Your task to perform on an android device: Is it going to rain tomorrow? Image 0: 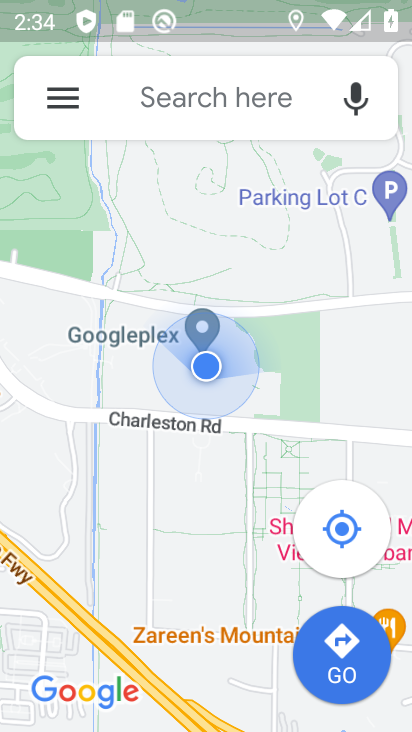
Step 0: press home button
Your task to perform on an android device: Is it going to rain tomorrow? Image 1: 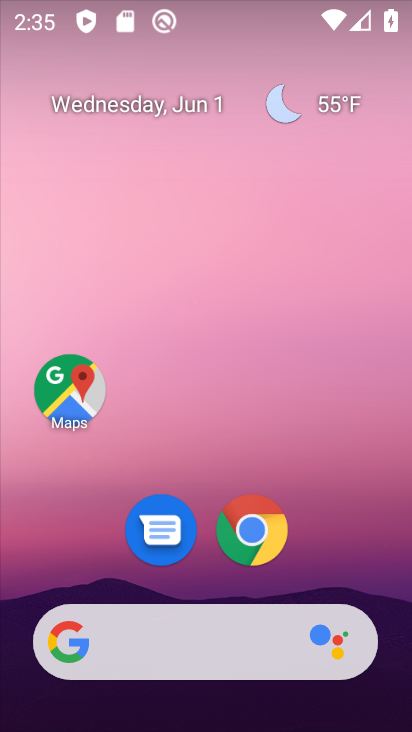
Step 1: click (332, 99)
Your task to perform on an android device: Is it going to rain tomorrow? Image 2: 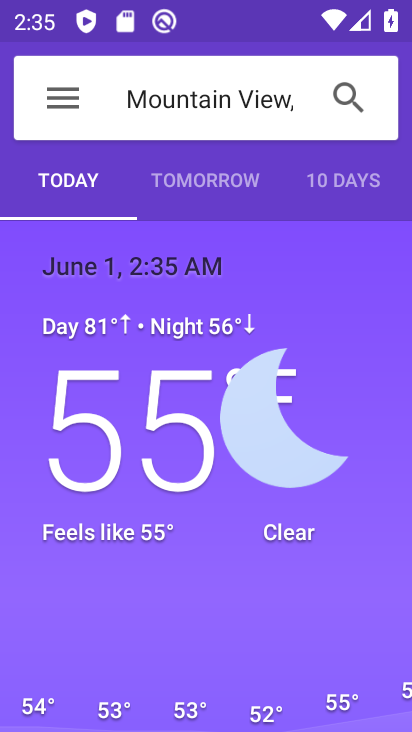
Step 2: click (243, 214)
Your task to perform on an android device: Is it going to rain tomorrow? Image 3: 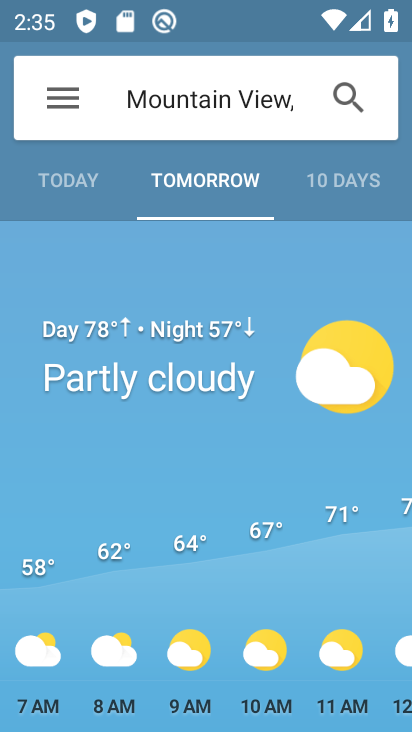
Step 3: task complete